Your task to perform on an android device: delete the emails in spam in the gmail app Image 0: 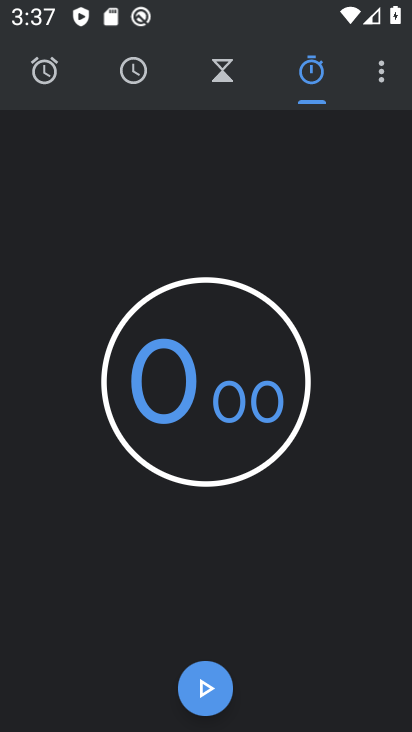
Step 0: press home button
Your task to perform on an android device: delete the emails in spam in the gmail app Image 1: 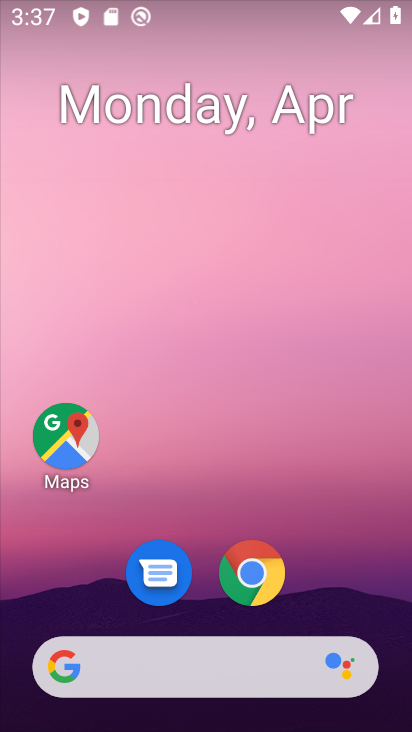
Step 1: drag from (371, 583) to (367, 127)
Your task to perform on an android device: delete the emails in spam in the gmail app Image 2: 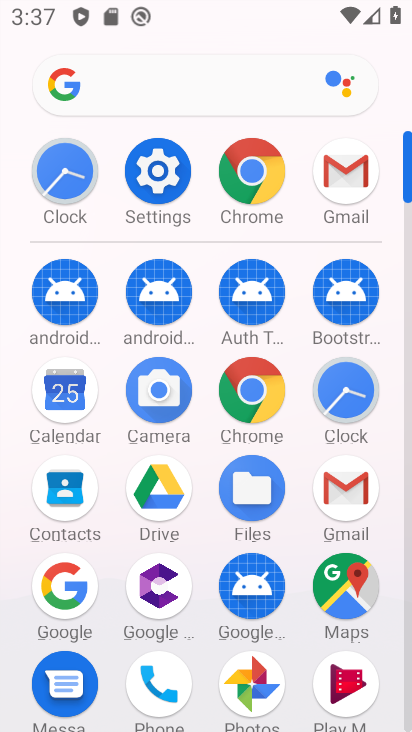
Step 2: click (348, 485)
Your task to perform on an android device: delete the emails in spam in the gmail app Image 3: 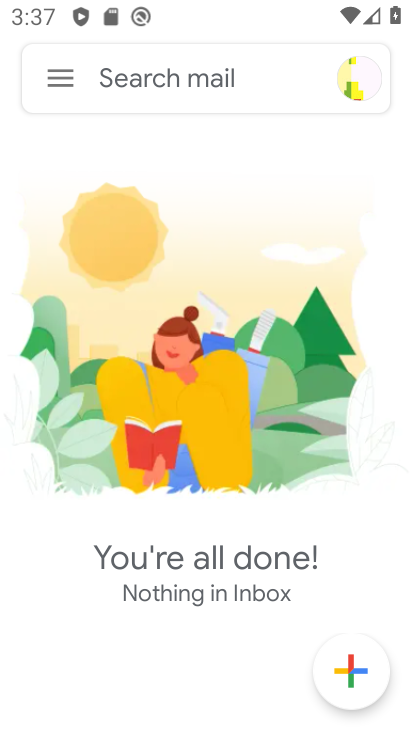
Step 3: click (72, 78)
Your task to perform on an android device: delete the emails in spam in the gmail app Image 4: 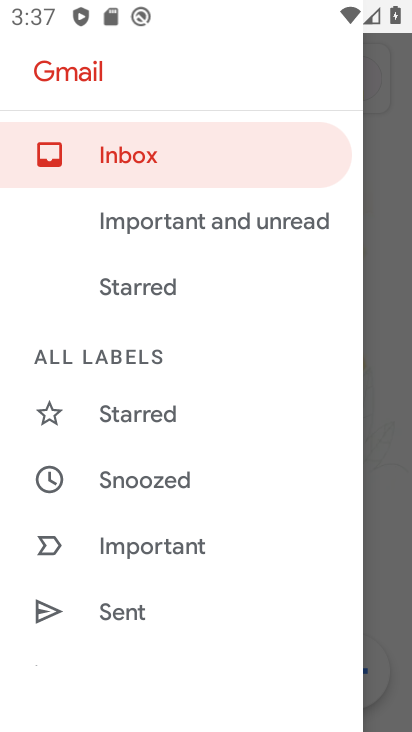
Step 4: drag from (261, 605) to (286, 374)
Your task to perform on an android device: delete the emails in spam in the gmail app Image 5: 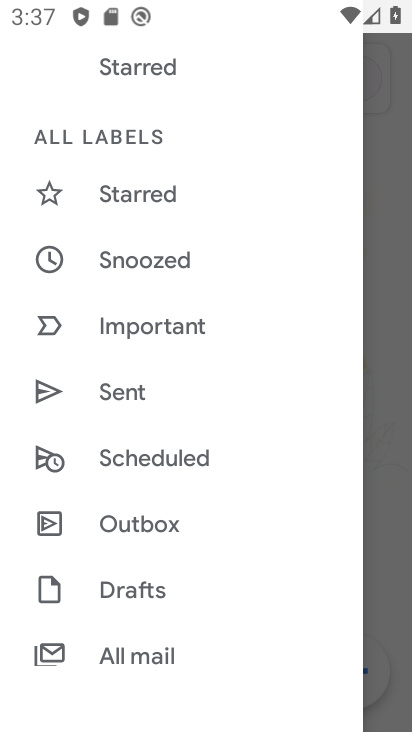
Step 5: drag from (295, 596) to (296, 477)
Your task to perform on an android device: delete the emails in spam in the gmail app Image 6: 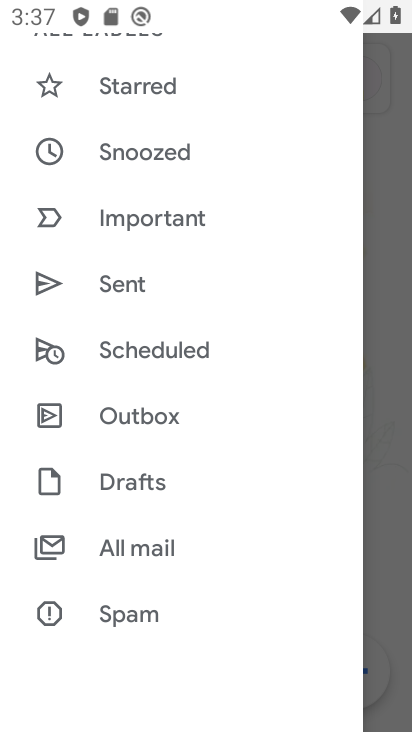
Step 6: drag from (287, 549) to (290, 347)
Your task to perform on an android device: delete the emails in spam in the gmail app Image 7: 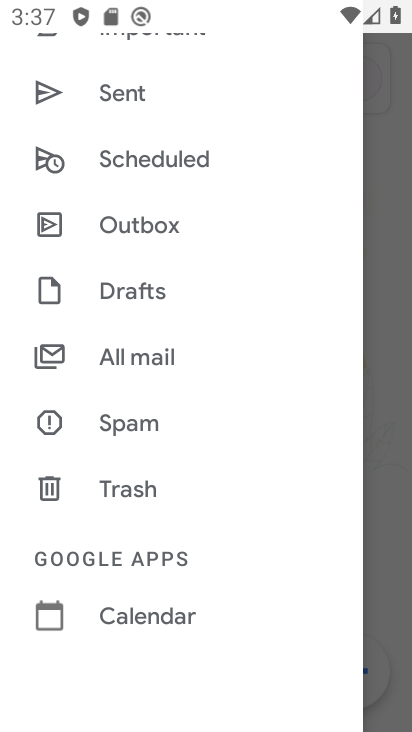
Step 7: drag from (270, 572) to (271, 325)
Your task to perform on an android device: delete the emails in spam in the gmail app Image 8: 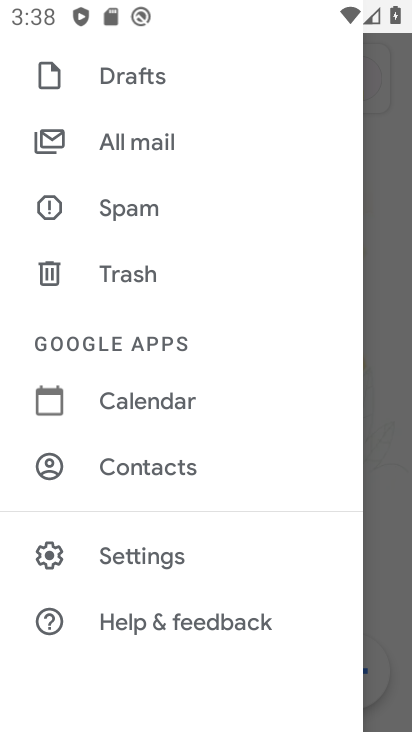
Step 8: drag from (272, 457) to (277, 374)
Your task to perform on an android device: delete the emails in spam in the gmail app Image 9: 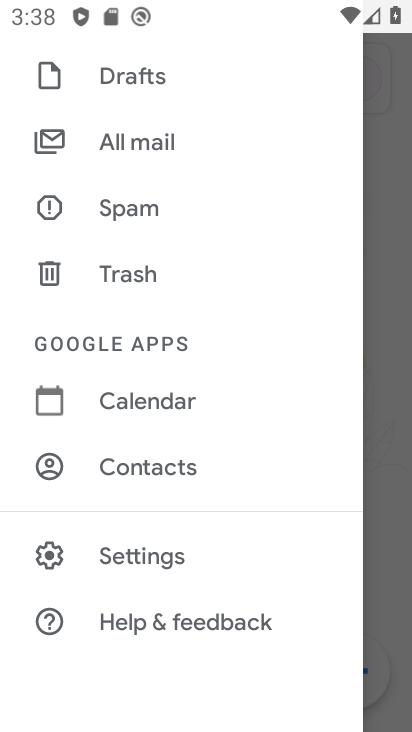
Step 9: drag from (291, 292) to (268, 496)
Your task to perform on an android device: delete the emails in spam in the gmail app Image 10: 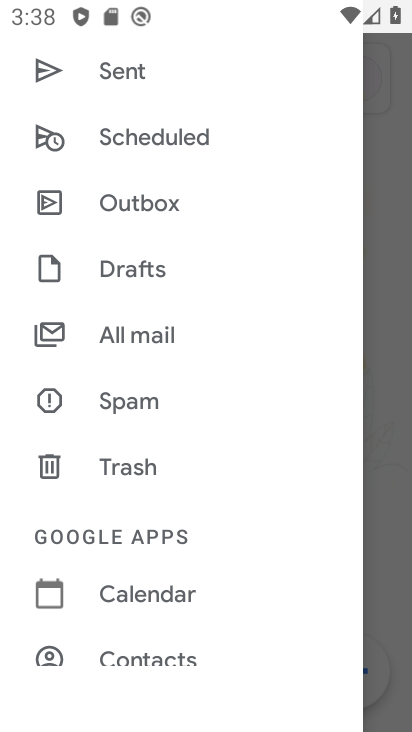
Step 10: drag from (263, 358) to (262, 463)
Your task to perform on an android device: delete the emails in spam in the gmail app Image 11: 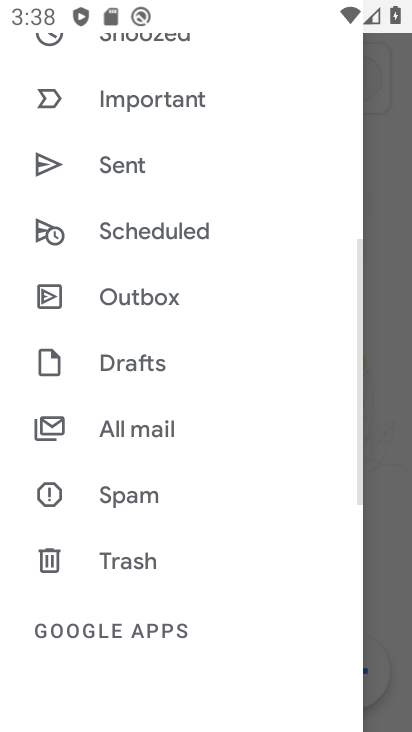
Step 11: drag from (258, 304) to (256, 465)
Your task to perform on an android device: delete the emails in spam in the gmail app Image 12: 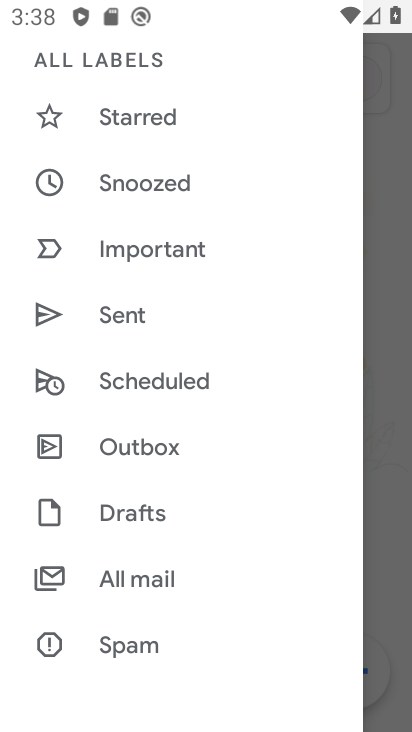
Step 12: drag from (263, 255) to (263, 420)
Your task to perform on an android device: delete the emails in spam in the gmail app Image 13: 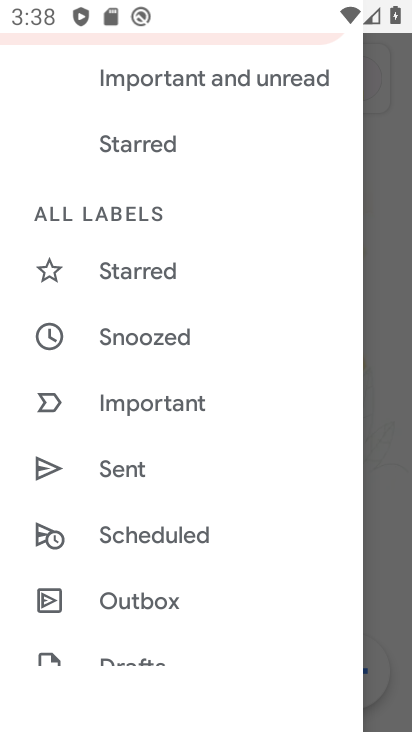
Step 13: drag from (235, 200) to (243, 458)
Your task to perform on an android device: delete the emails in spam in the gmail app Image 14: 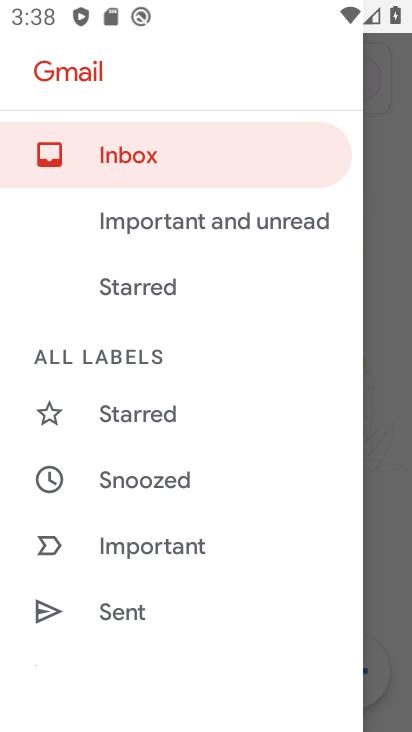
Step 14: click (153, 146)
Your task to perform on an android device: delete the emails in spam in the gmail app Image 15: 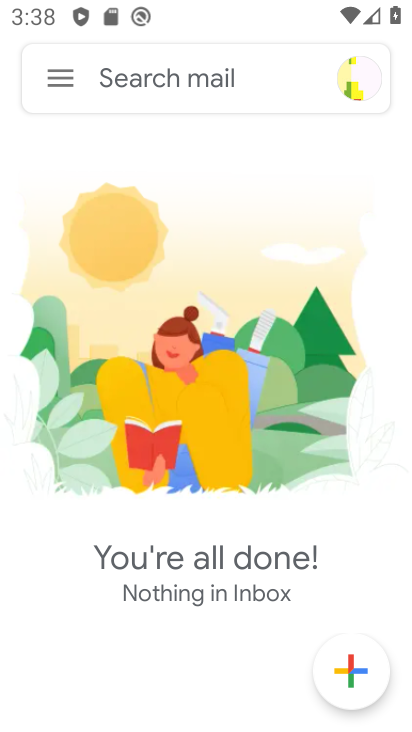
Step 15: task complete